Your task to perform on an android device: Open sound settings Image 0: 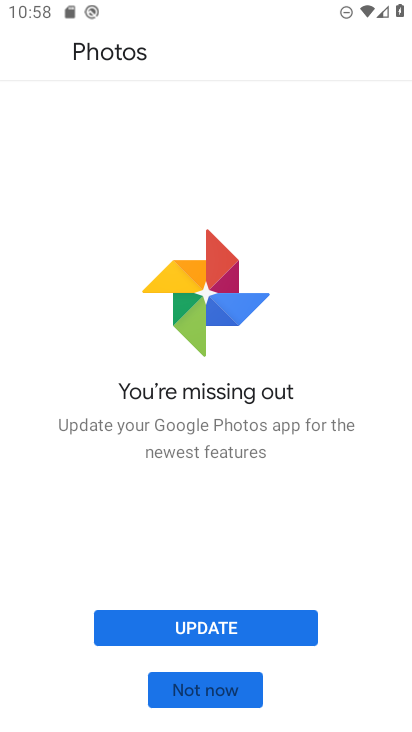
Step 0: press home button
Your task to perform on an android device: Open sound settings Image 1: 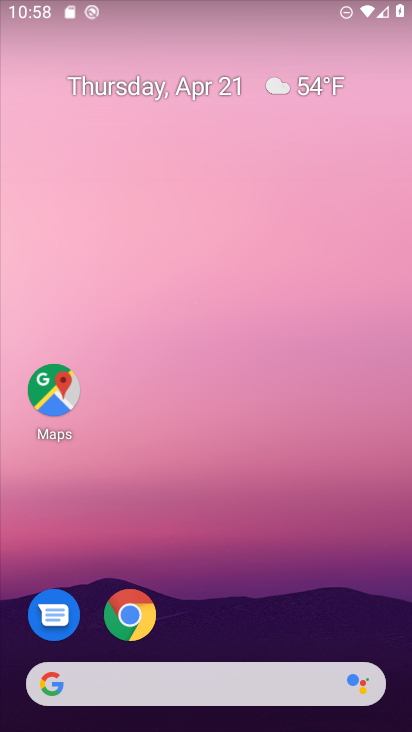
Step 1: drag from (268, 620) to (294, 105)
Your task to perform on an android device: Open sound settings Image 2: 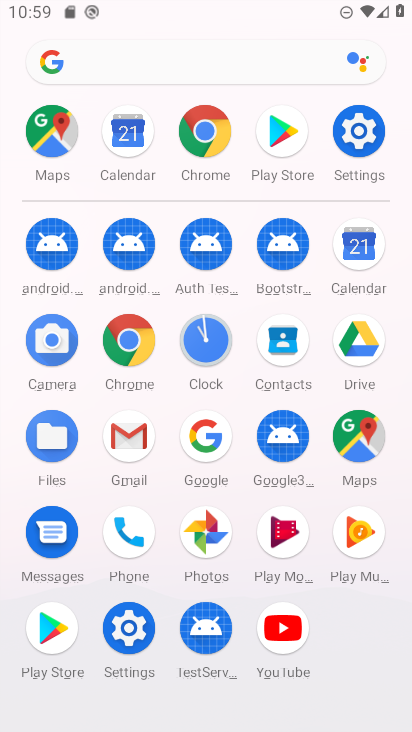
Step 2: click (361, 134)
Your task to perform on an android device: Open sound settings Image 3: 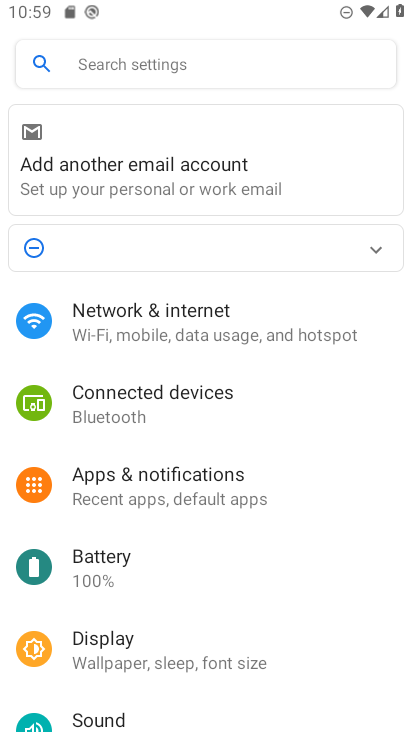
Step 3: drag from (208, 655) to (202, 480)
Your task to perform on an android device: Open sound settings Image 4: 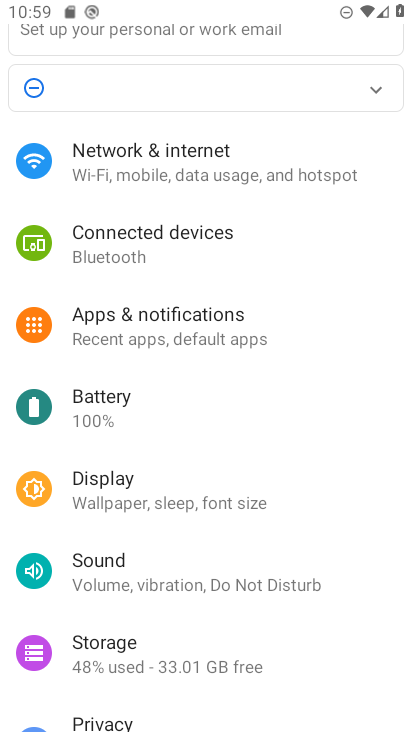
Step 4: click (164, 576)
Your task to perform on an android device: Open sound settings Image 5: 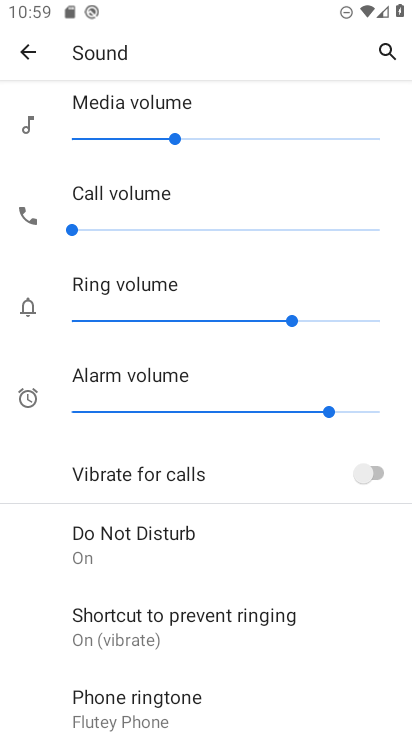
Step 5: task complete